Your task to perform on an android device: Clear the shopping cart on ebay. Add razer blade to the cart on ebay, then select checkout. Image 0: 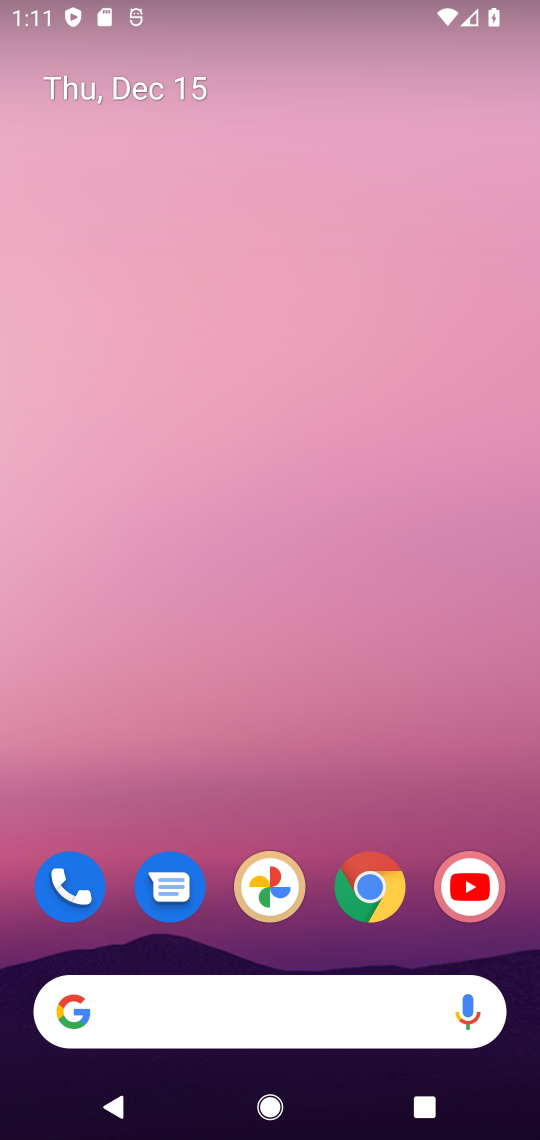
Step 0: click (368, 903)
Your task to perform on an android device: Clear the shopping cart on ebay. Add razer blade to the cart on ebay, then select checkout. Image 1: 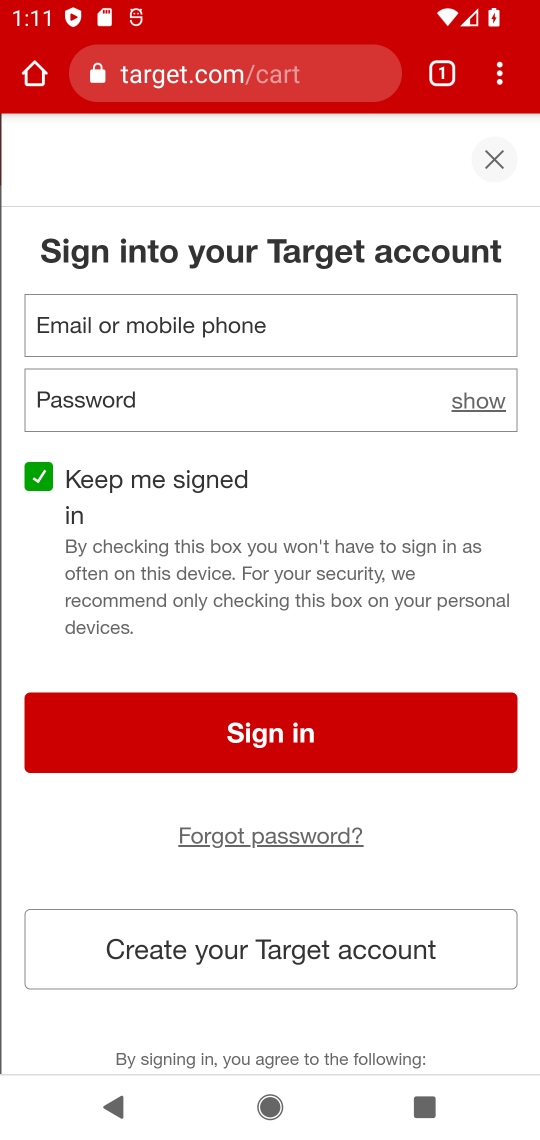
Step 1: click (166, 79)
Your task to perform on an android device: Clear the shopping cart on ebay. Add razer blade to the cart on ebay, then select checkout. Image 2: 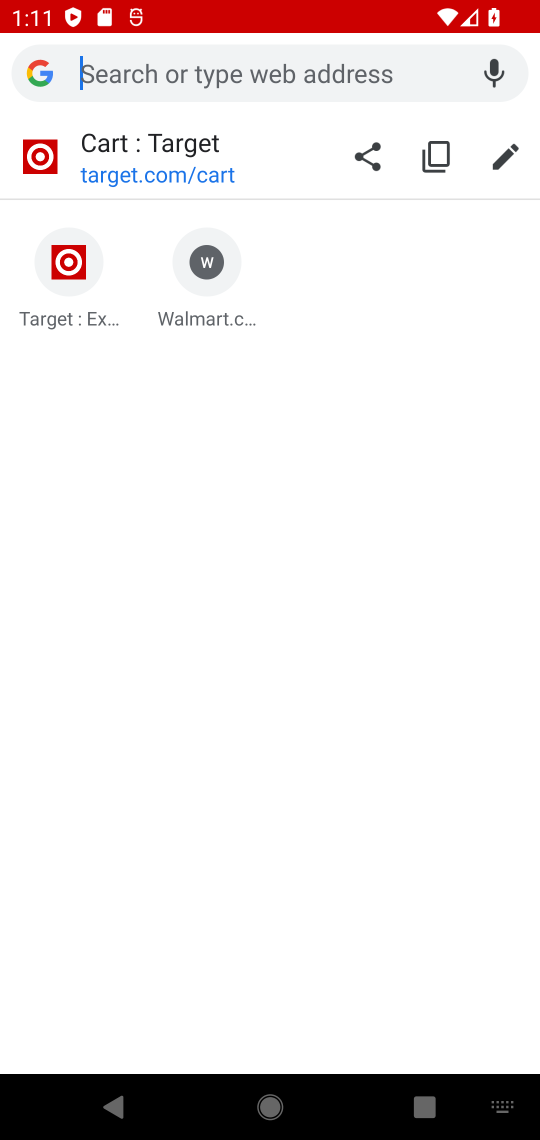
Step 2: type "ebay.com"
Your task to perform on an android device: Clear the shopping cart on ebay. Add razer blade to the cart on ebay, then select checkout. Image 3: 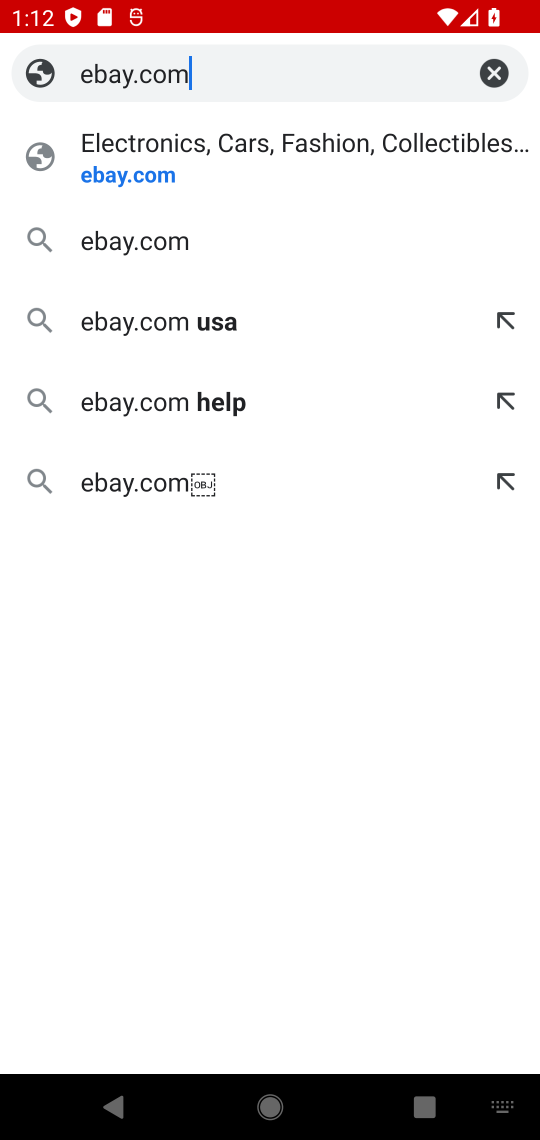
Step 3: click (163, 185)
Your task to perform on an android device: Clear the shopping cart on ebay. Add razer blade to the cart on ebay, then select checkout. Image 4: 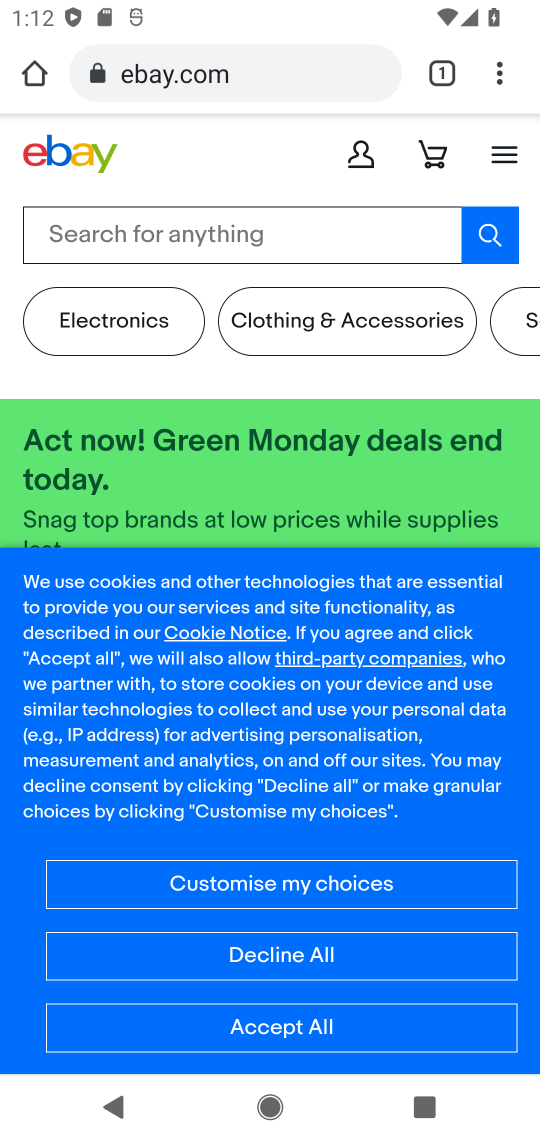
Step 4: click (437, 164)
Your task to perform on an android device: Clear the shopping cart on ebay. Add razer blade to the cart on ebay, then select checkout. Image 5: 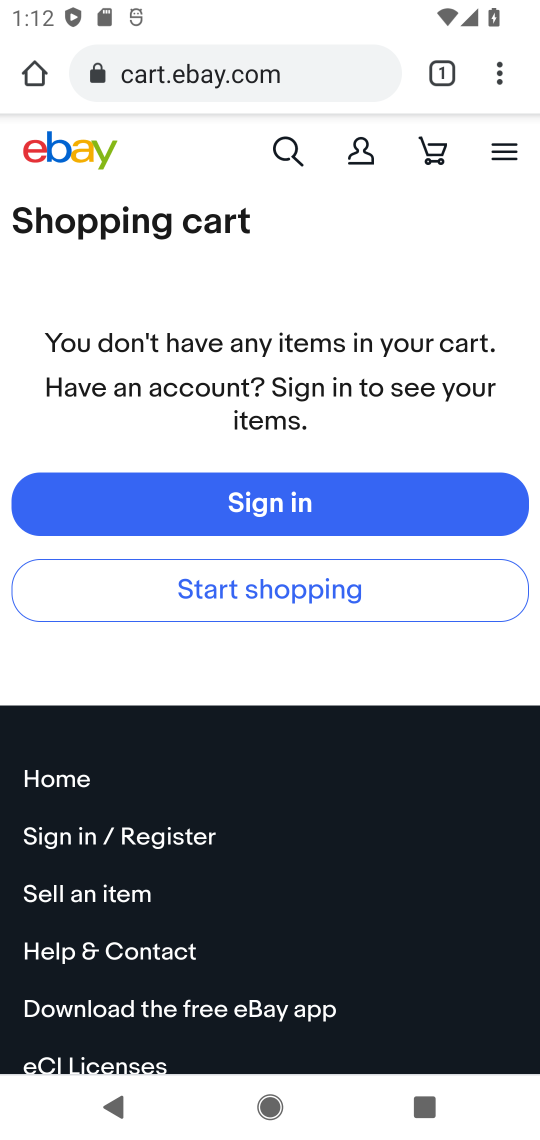
Step 5: click (278, 147)
Your task to perform on an android device: Clear the shopping cart on ebay. Add razer blade to the cart on ebay, then select checkout. Image 6: 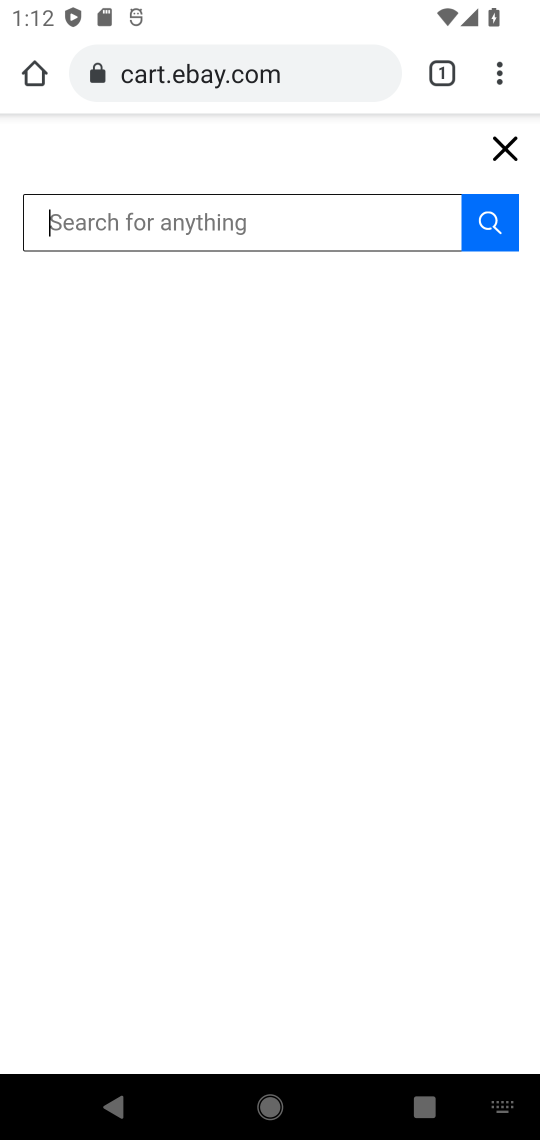
Step 6: type " razer blade"
Your task to perform on an android device: Clear the shopping cart on ebay. Add razer blade to the cart on ebay, then select checkout. Image 7: 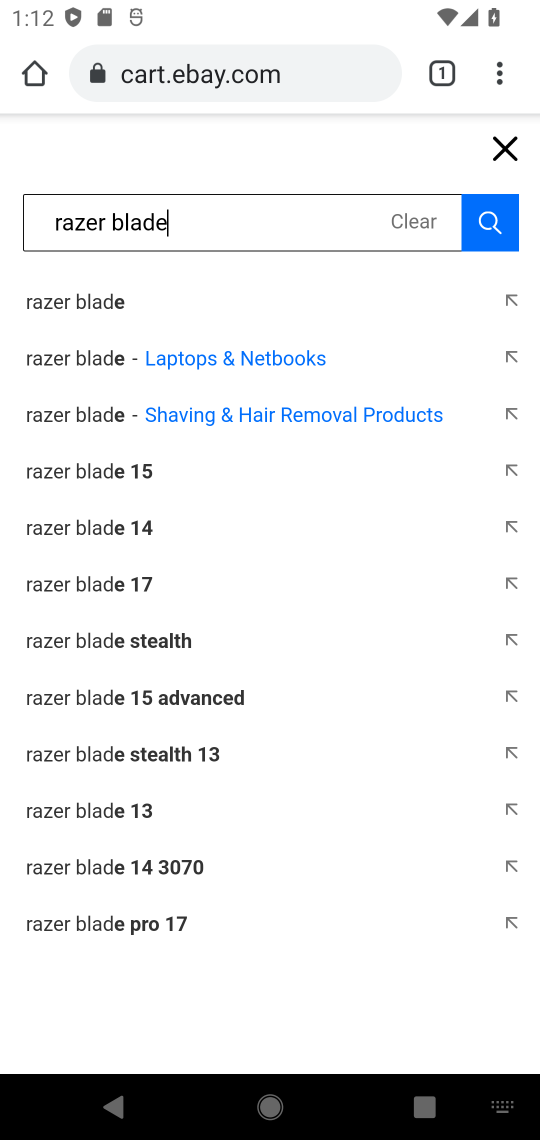
Step 7: click (83, 298)
Your task to perform on an android device: Clear the shopping cart on ebay. Add razer blade to the cart on ebay, then select checkout. Image 8: 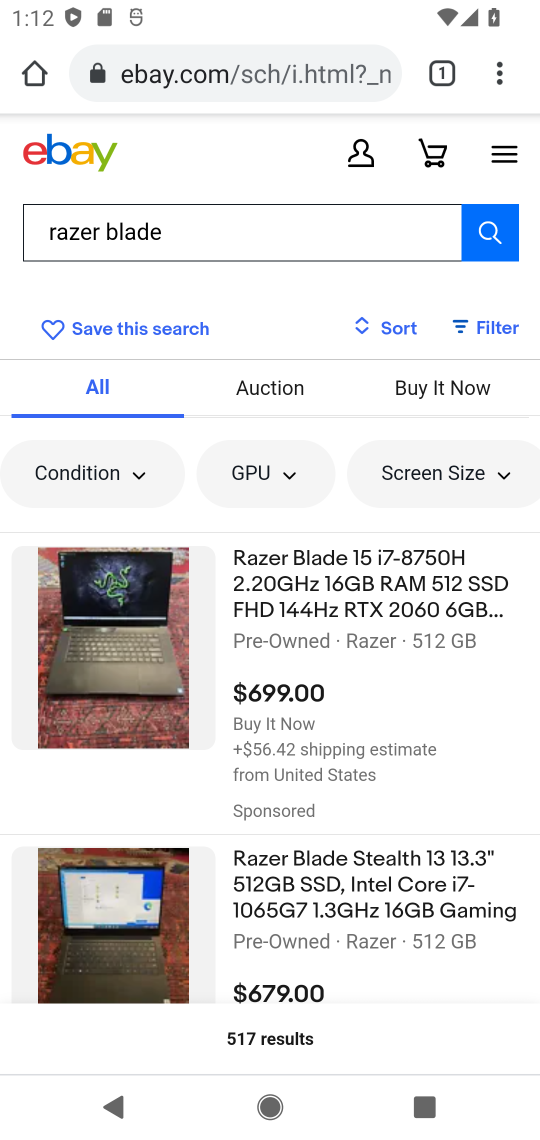
Step 8: click (282, 608)
Your task to perform on an android device: Clear the shopping cart on ebay. Add razer blade to the cart on ebay, then select checkout. Image 9: 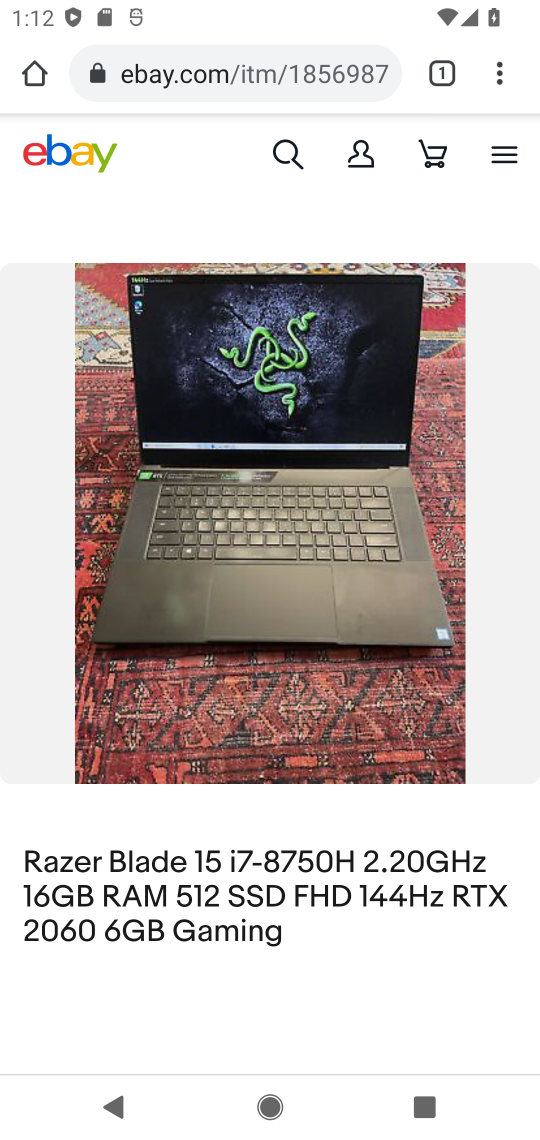
Step 9: drag from (248, 862) to (247, 346)
Your task to perform on an android device: Clear the shopping cart on ebay. Add razer blade to the cart on ebay, then select checkout. Image 10: 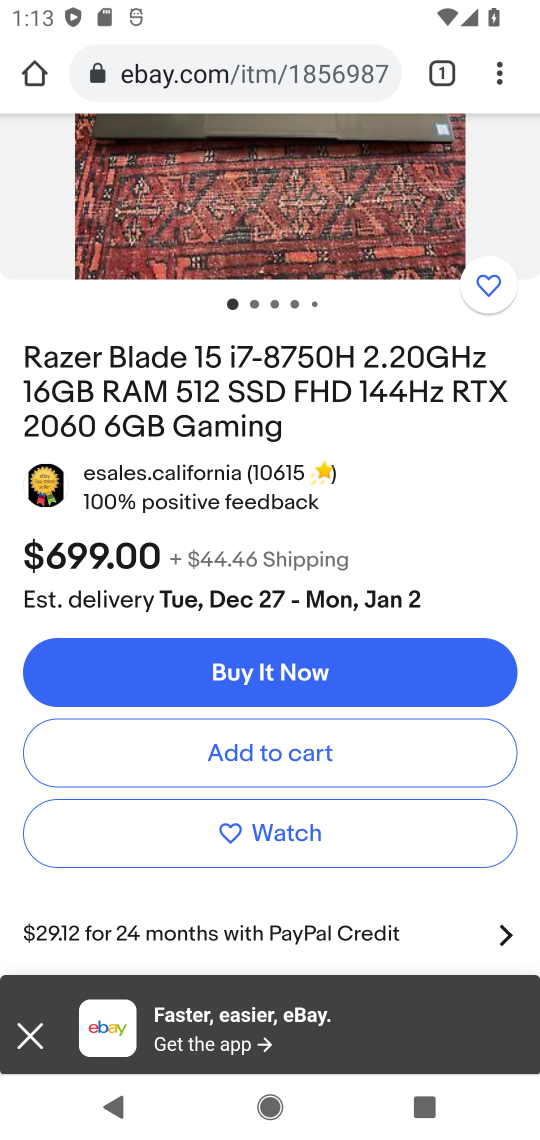
Step 10: click (235, 760)
Your task to perform on an android device: Clear the shopping cart on ebay. Add razer blade to the cart on ebay, then select checkout. Image 11: 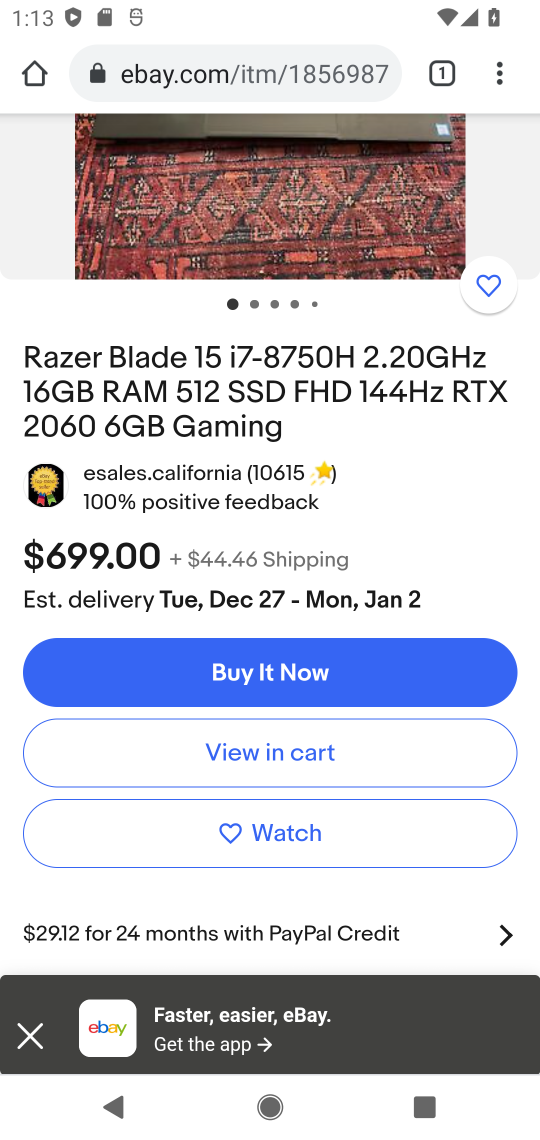
Step 11: click (235, 760)
Your task to perform on an android device: Clear the shopping cart on ebay. Add razer blade to the cart on ebay, then select checkout. Image 12: 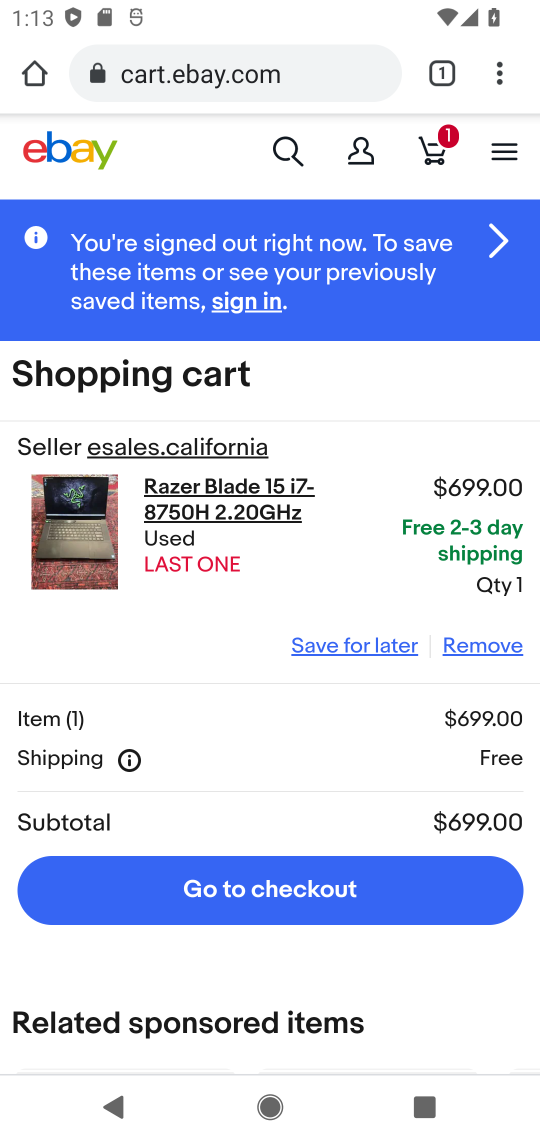
Step 12: click (239, 884)
Your task to perform on an android device: Clear the shopping cart on ebay. Add razer blade to the cart on ebay, then select checkout. Image 13: 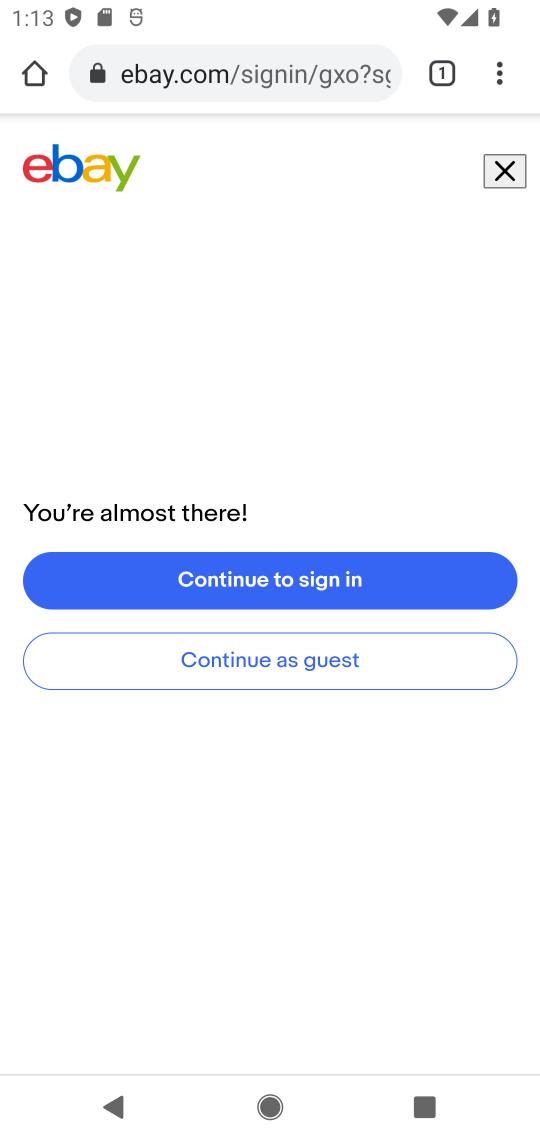
Step 13: task complete